Your task to perform on an android device: View the shopping cart on walmart.com. Image 0: 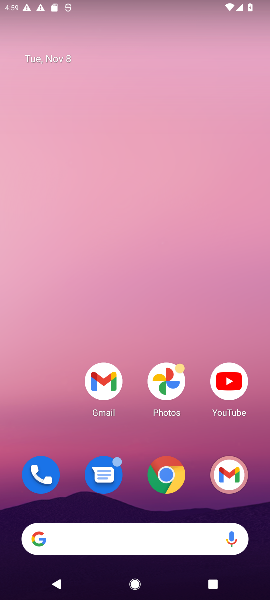
Step 0: drag from (110, 504) to (149, 167)
Your task to perform on an android device: View the shopping cart on walmart.com. Image 1: 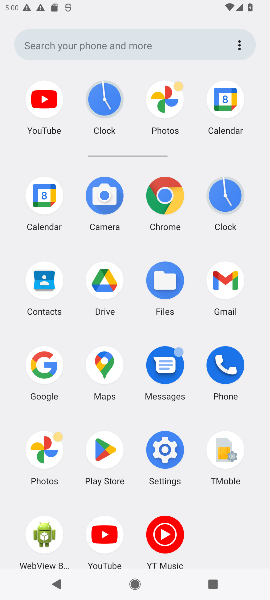
Step 1: click (37, 347)
Your task to perform on an android device: View the shopping cart on walmart.com. Image 2: 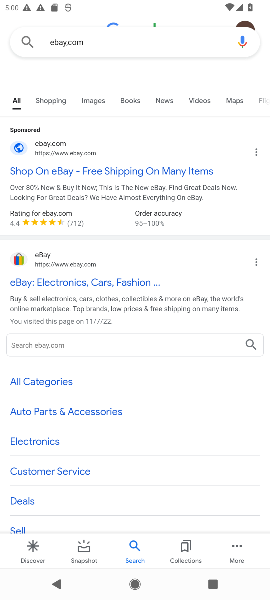
Step 2: click (107, 45)
Your task to perform on an android device: View the shopping cart on walmart.com. Image 3: 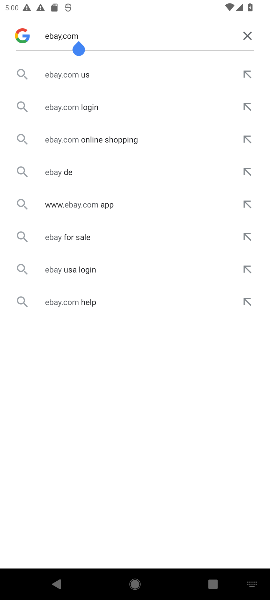
Step 3: click (248, 38)
Your task to perform on an android device: View the shopping cart on walmart.com. Image 4: 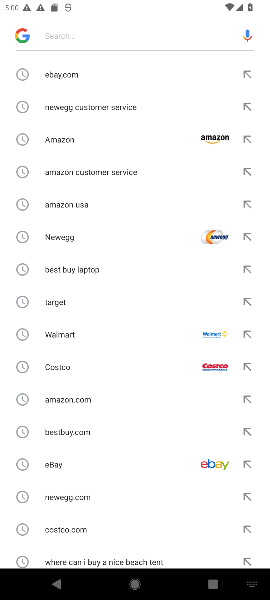
Step 4: click (72, 36)
Your task to perform on an android device: View the shopping cart on walmart.com. Image 5: 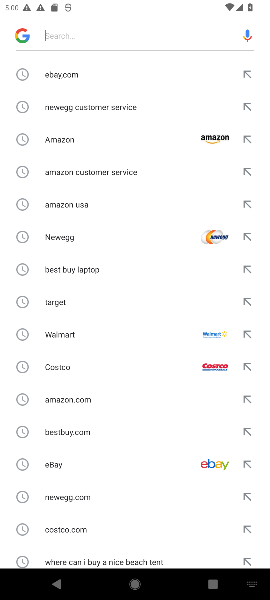
Step 5: type "walmart.com. "
Your task to perform on an android device: View the shopping cart on walmart.com. Image 6: 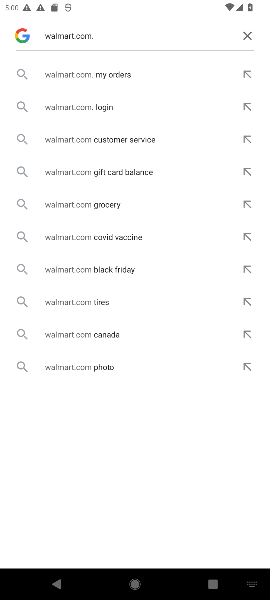
Step 6: click (83, 68)
Your task to perform on an android device: View the shopping cart on walmart.com. Image 7: 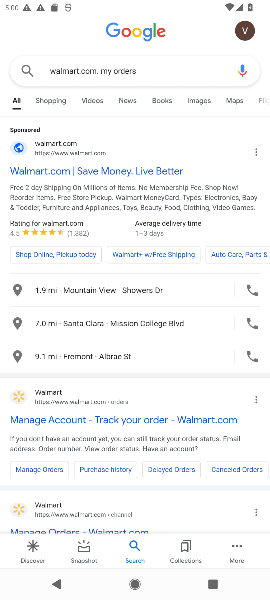
Step 7: click (19, 392)
Your task to perform on an android device: View the shopping cart on walmart.com. Image 8: 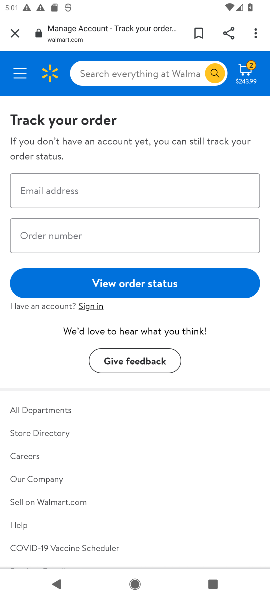
Step 8: click (142, 66)
Your task to perform on an android device: View the shopping cart on walmart.com. Image 9: 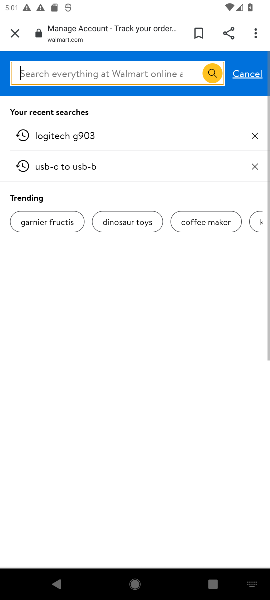
Step 9: click (247, 65)
Your task to perform on an android device: View the shopping cart on walmart.com. Image 10: 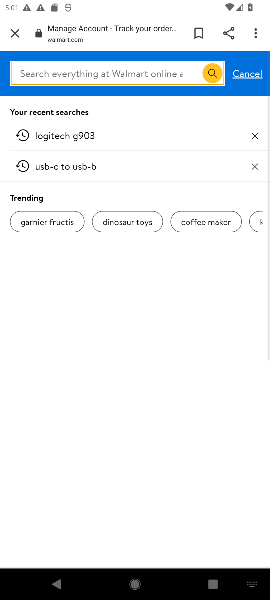
Step 10: click (247, 65)
Your task to perform on an android device: View the shopping cart on walmart.com. Image 11: 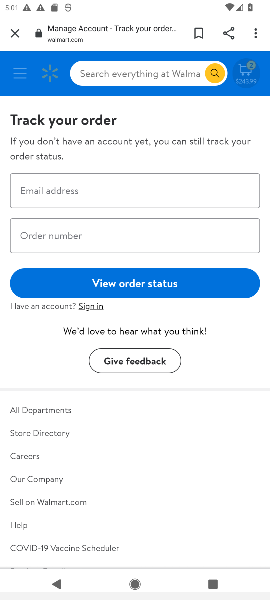
Step 11: click (247, 65)
Your task to perform on an android device: View the shopping cart on walmart.com. Image 12: 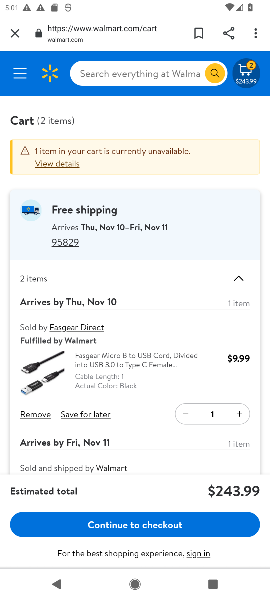
Step 12: click (245, 68)
Your task to perform on an android device: View the shopping cart on walmart.com. Image 13: 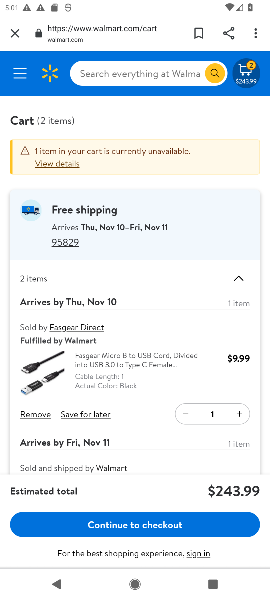
Step 13: click (32, 411)
Your task to perform on an android device: View the shopping cart on walmart.com. Image 14: 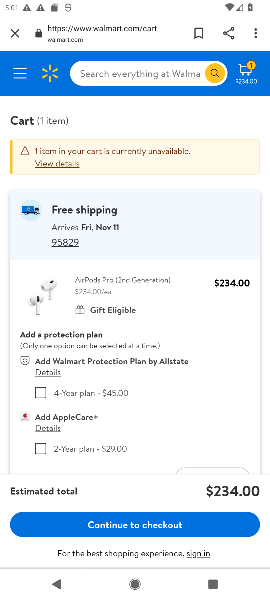
Step 14: drag from (111, 445) to (132, 277)
Your task to perform on an android device: View the shopping cart on walmart.com. Image 15: 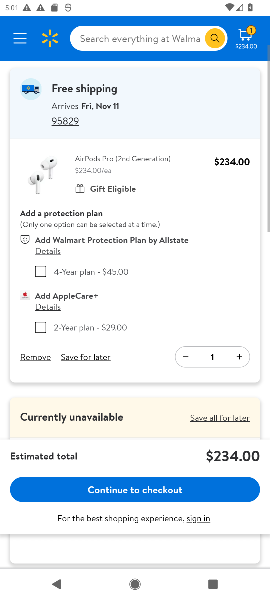
Step 15: drag from (139, 245) to (150, 220)
Your task to perform on an android device: View the shopping cart on walmart.com. Image 16: 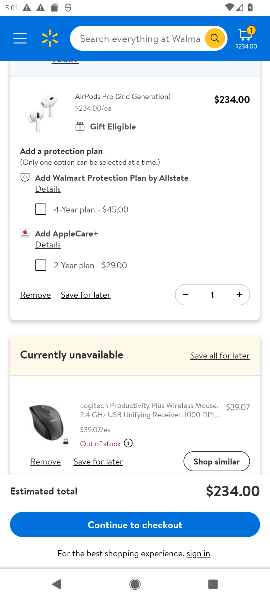
Step 16: click (30, 297)
Your task to perform on an android device: View the shopping cart on walmart.com. Image 17: 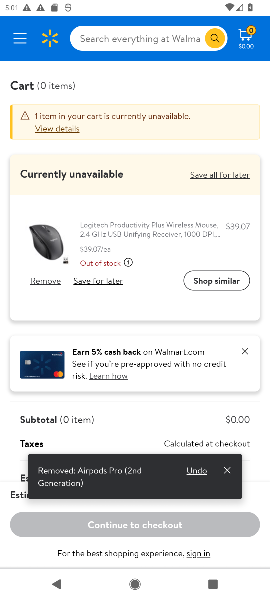
Step 17: click (34, 283)
Your task to perform on an android device: View the shopping cart on walmart.com. Image 18: 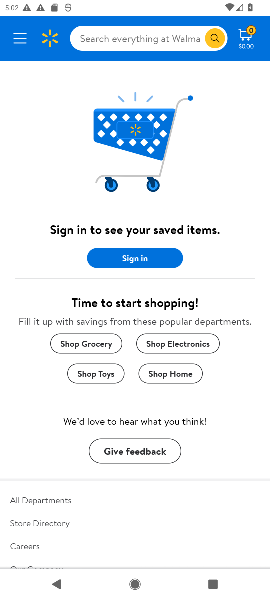
Step 18: task complete